Your task to perform on an android device: open a new tab in the chrome app Image 0: 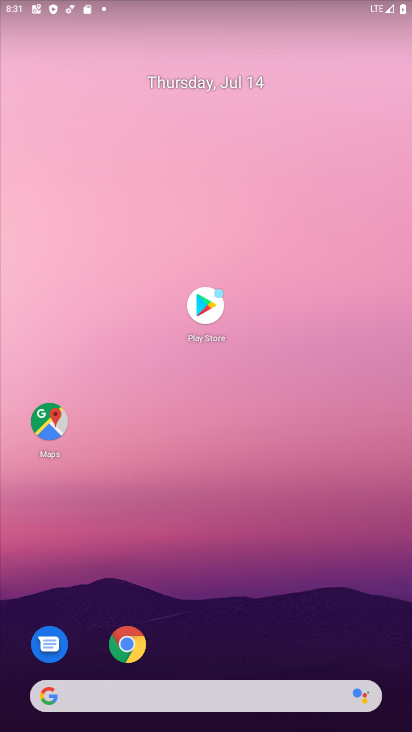
Step 0: drag from (212, 648) to (211, 275)
Your task to perform on an android device: open a new tab in the chrome app Image 1: 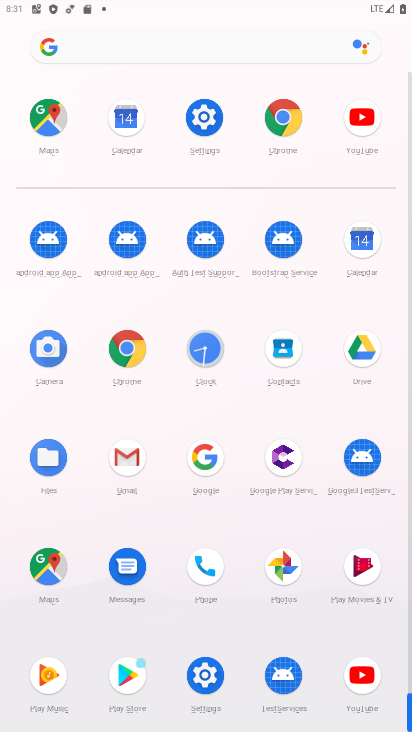
Step 1: click (128, 348)
Your task to perform on an android device: open a new tab in the chrome app Image 2: 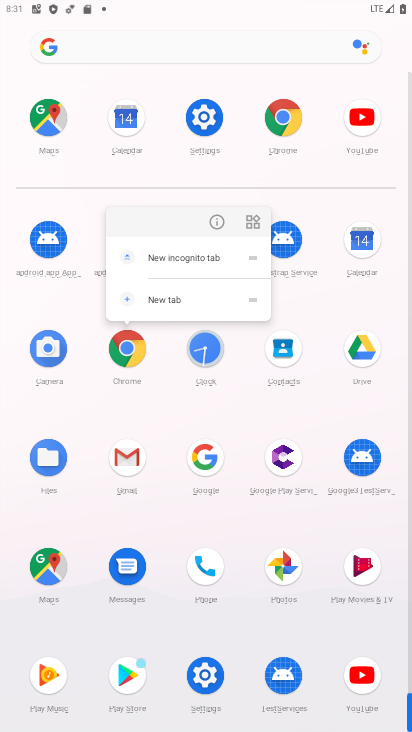
Step 2: click (216, 221)
Your task to perform on an android device: open a new tab in the chrome app Image 3: 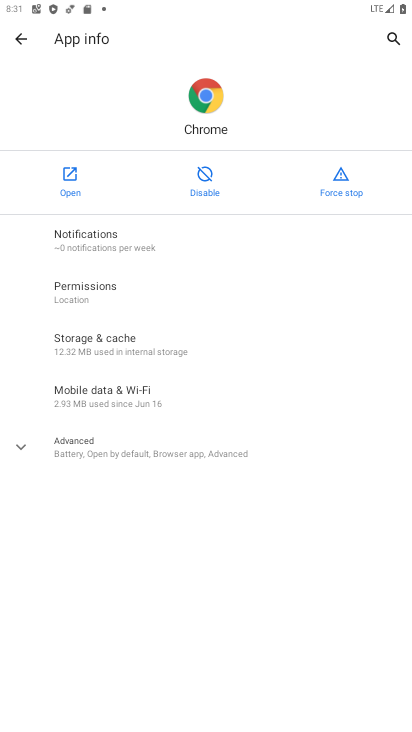
Step 3: click (80, 181)
Your task to perform on an android device: open a new tab in the chrome app Image 4: 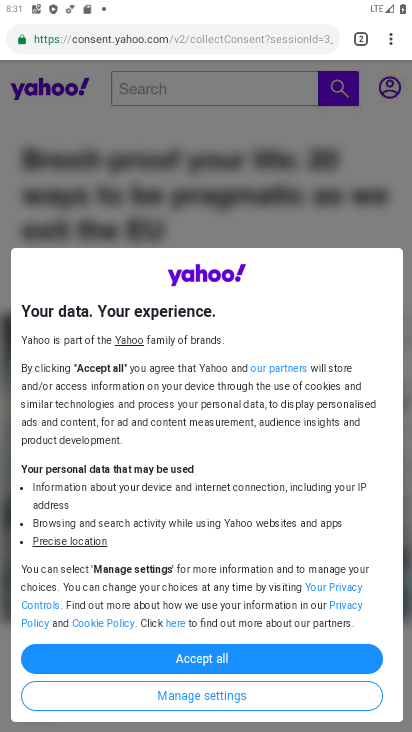
Step 4: drag from (209, 565) to (259, 359)
Your task to perform on an android device: open a new tab in the chrome app Image 5: 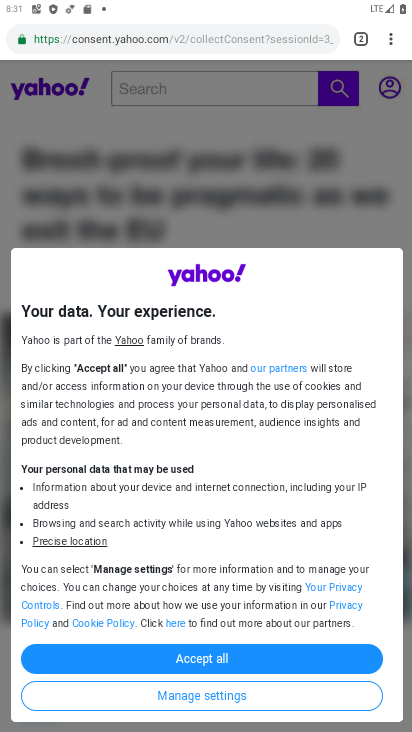
Step 5: click (389, 30)
Your task to perform on an android device: open a new tab in the chrome app Image 6: 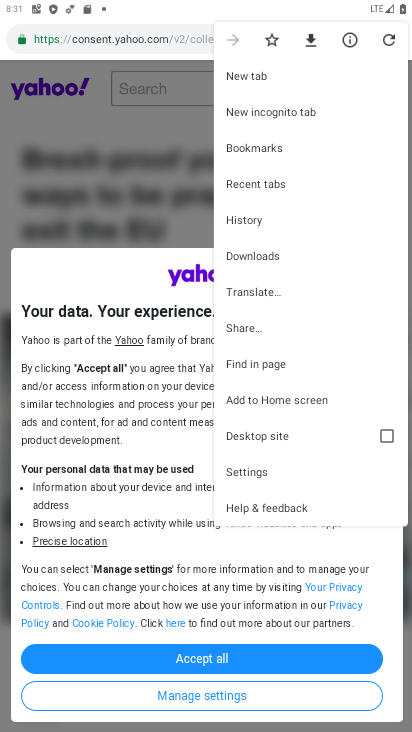
Step 6: click (272, 81)
Your task to perform on an android device: open a new tab in the chrome app Image 7: 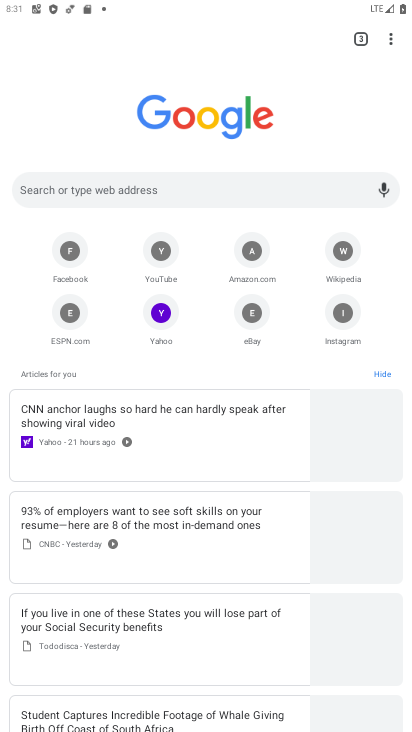
Step 7: task complete